Your task to perform on an android device: turn off location Image 0: 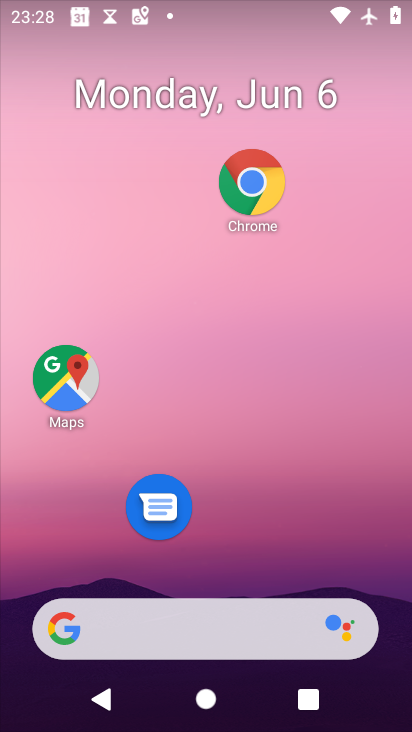
Step 0: drag from (267, 563) to (267, 290)
Your task to perform on an android device: turn off location Image 1: 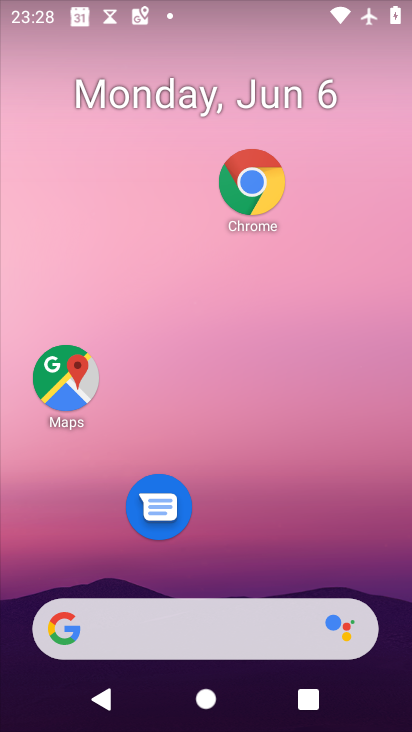
Step 1: drag from (212, 523) to (251, 255)
Your task to perform on an android device: turn off location Image 2: 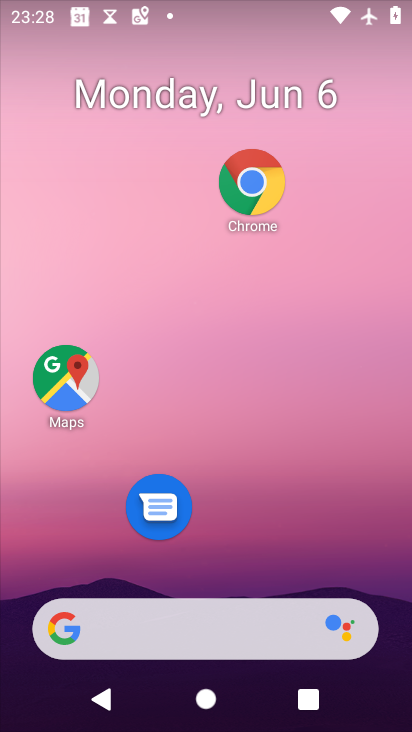
Step 2: drag from (231, 619) to (250, 228)
Your task to perform on an android device: turn off location Image 3: 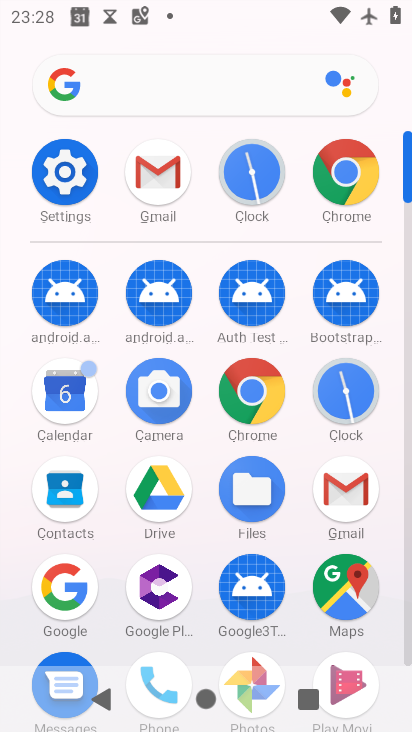
Step 3: click (71, 157)
Your task to perform on an android device: turn off location Image 4: 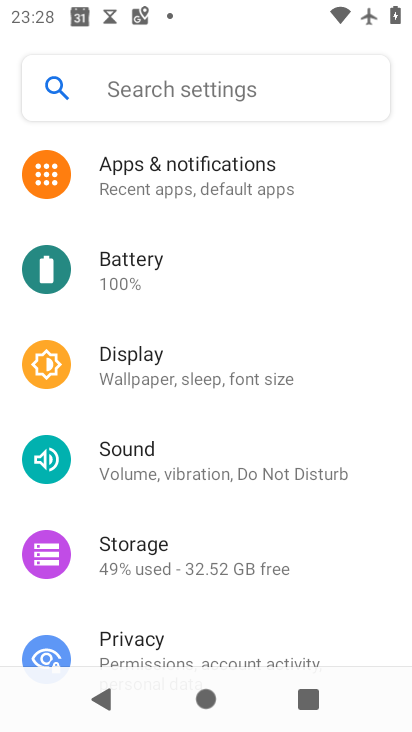
Step 4: drag from (194, 577) to (231, 237)
Your task to perform on an android device: turn off location Image 5: 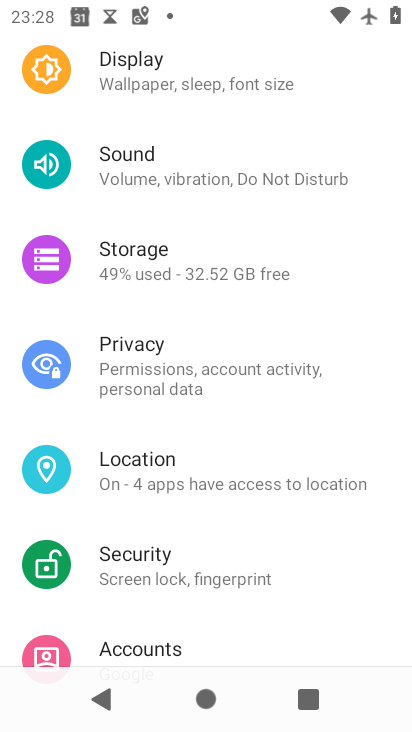
Step 5: click (167, 470)
Your task to perform on an android device: turn off location Image 6: 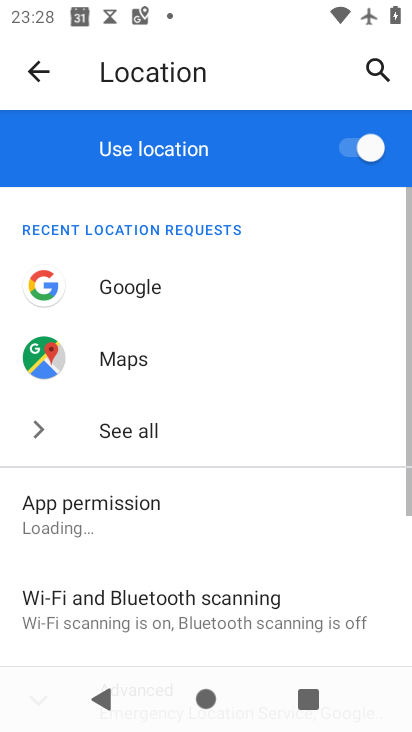
Step 6: click (332, 129)
Your task to perform on an android device: turn off location Image 7: 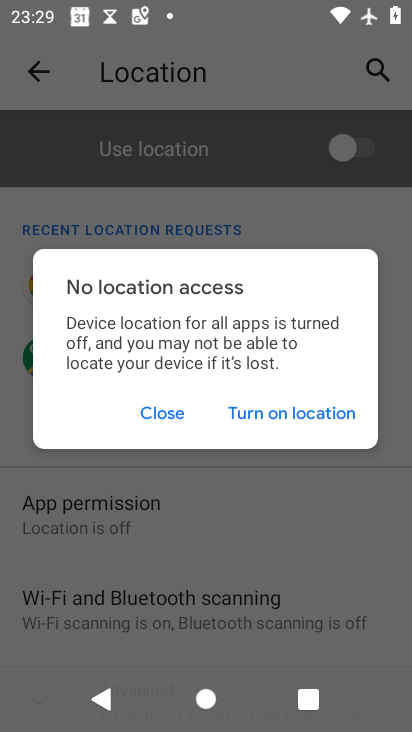
Step 7: click (147, 410)
Your task to perform on an android device: turn off location Image 8: 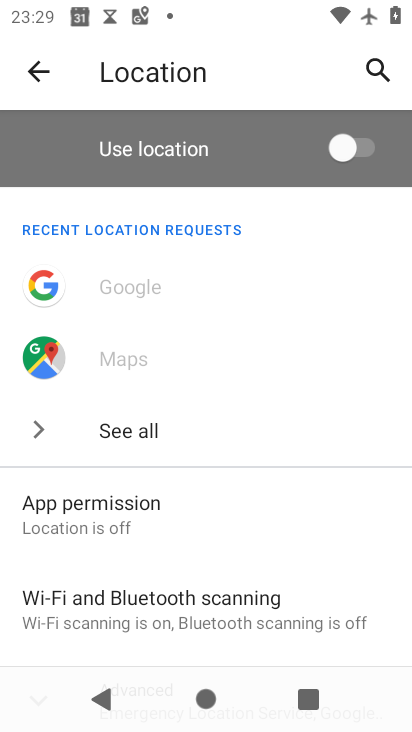
Step 8: task complete